Your task to perform on an android device: set an alarm Image 0: 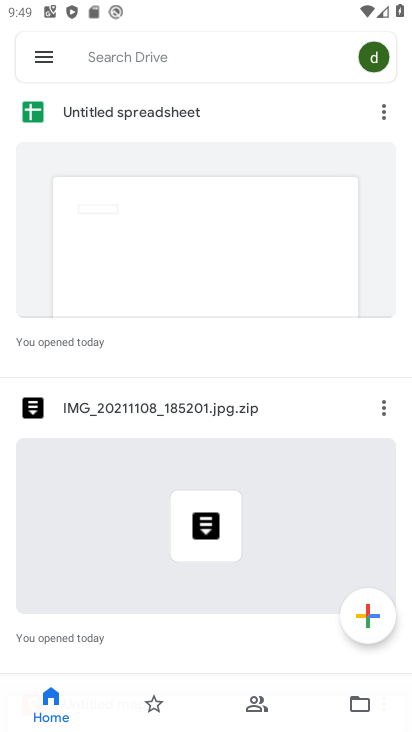
Step 0: press home button
Your task to perform on an android device: set an alarm Image 1: 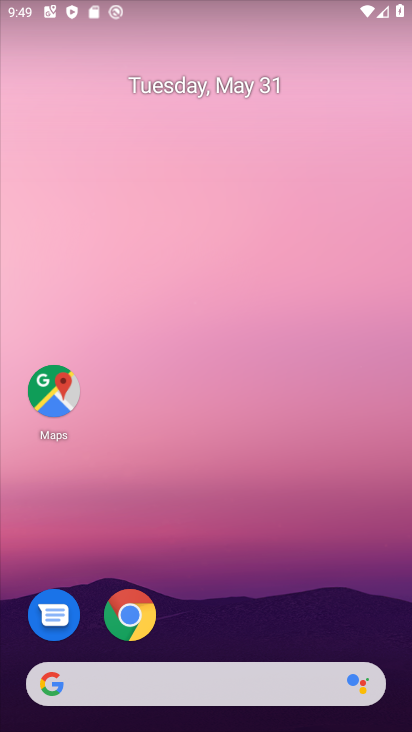
Step 1: drag from (366, 510) to (355, 114)
Your task to perform on an android device: set an alarm Image 2: 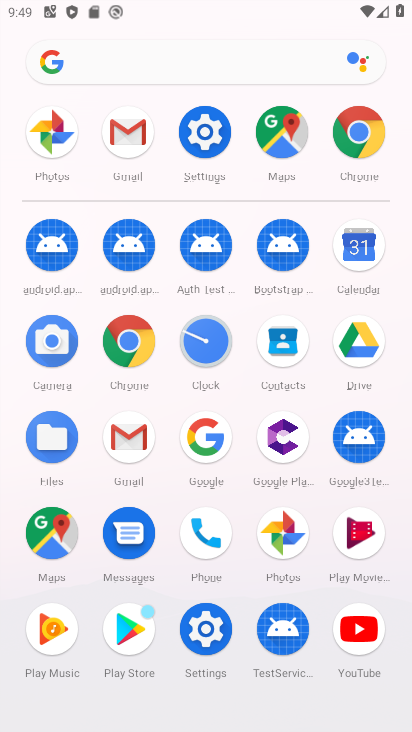
Step 2: click (192, 354)
Your task to perform on an android device: set an alarm Image 3: 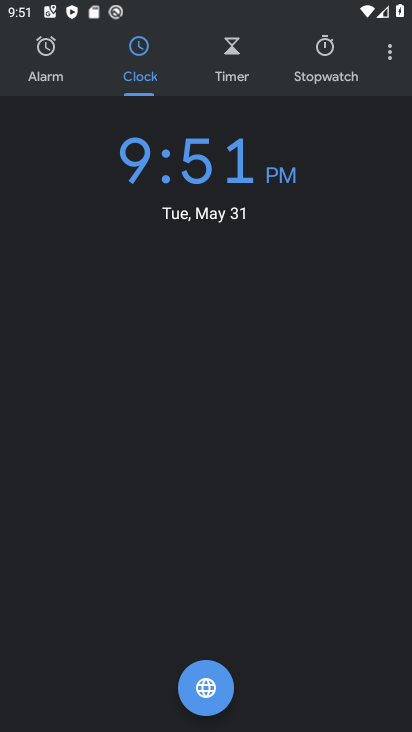
Step 3: click (64, 57)
Your task to perform on an android device: set an alarm Image 4: 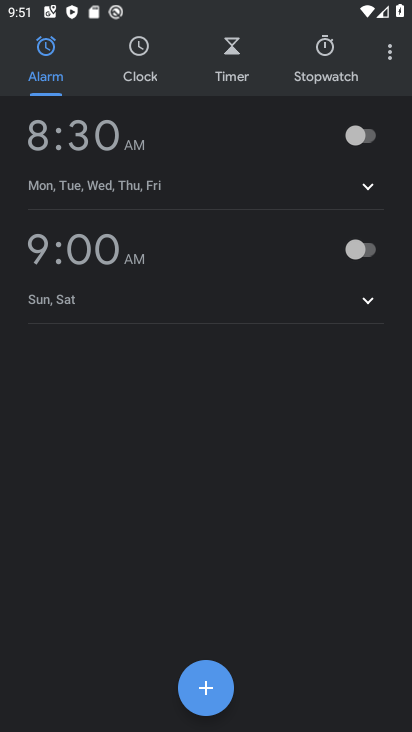
Step 4: click (341, 136)
Your task to perform on an android device: set an alarm Image 5: 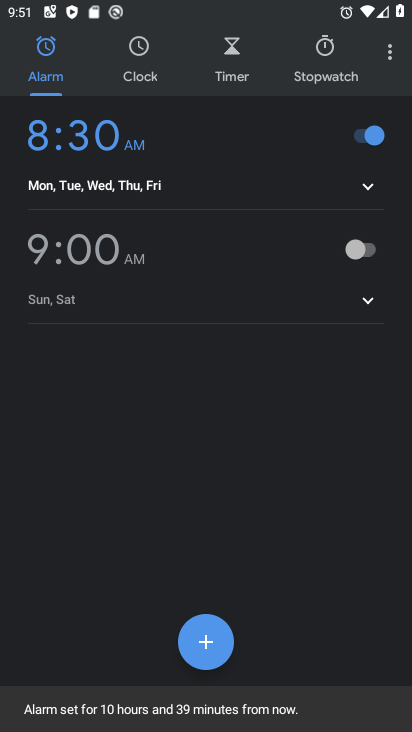
Step 5: task complete